Your task to perform on an android device: Open the calendar and show me this week's events? Image 0: 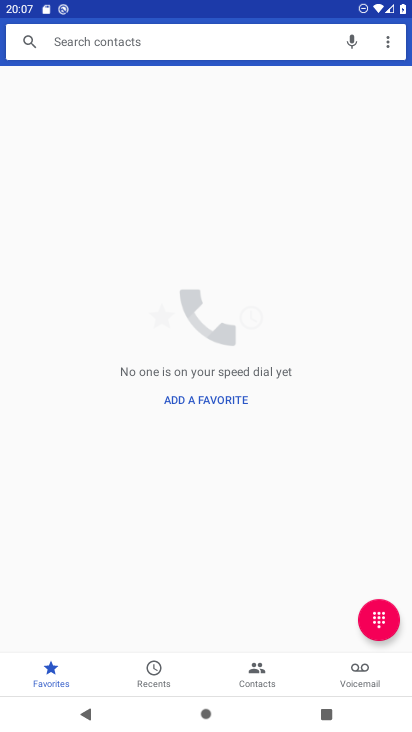
Step 0: press home button
Your task to perform on an android device: Open the calendar and show me this week's events? Image 1: 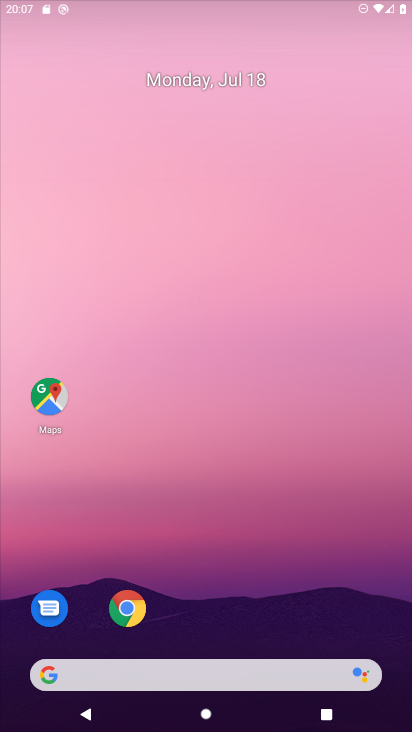
Step 1: drag from (227, 632) to (253, 100)
Your task to perform on an android device: Open the calendar and show me this week's events? Image 2: 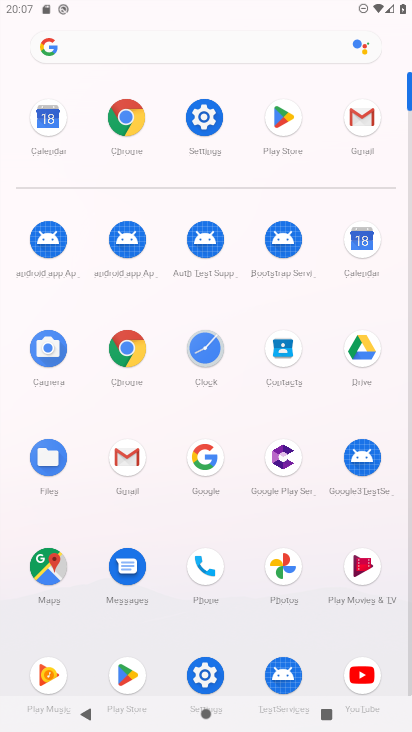
Step 2: click (367, 241)
Your task to perform on an android device: Open the calendar and show me this week's events? Image 3: 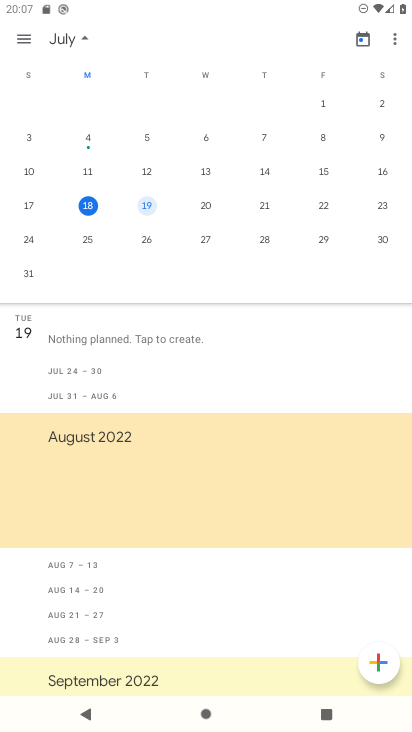
Step 3: click (210, 206)
Your task to perform on an android device: Open the calendar and show me this week's events? Image 4: 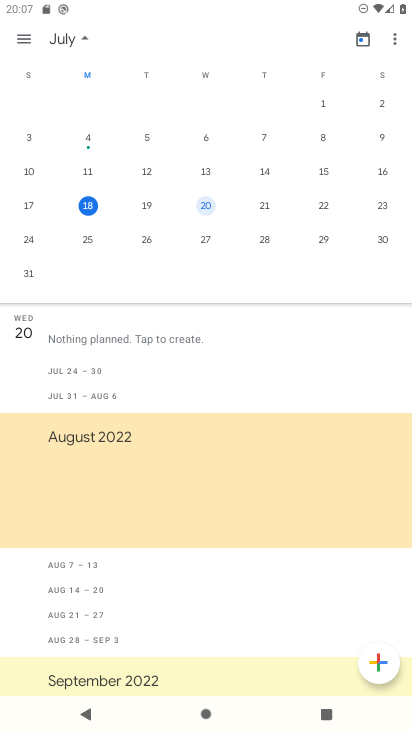
Step 4: task complete